Your task to perform on an android device: add a contact Image 0: 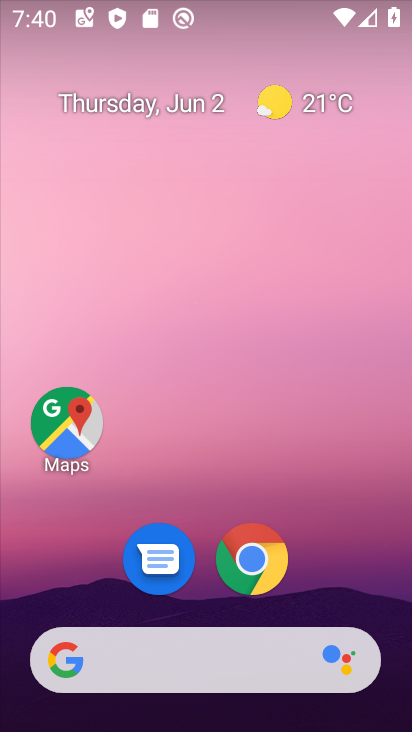
Step 0: drag from (326, 567) to (274, 65)
Your task to perform on an android device: add a contact Image 1: 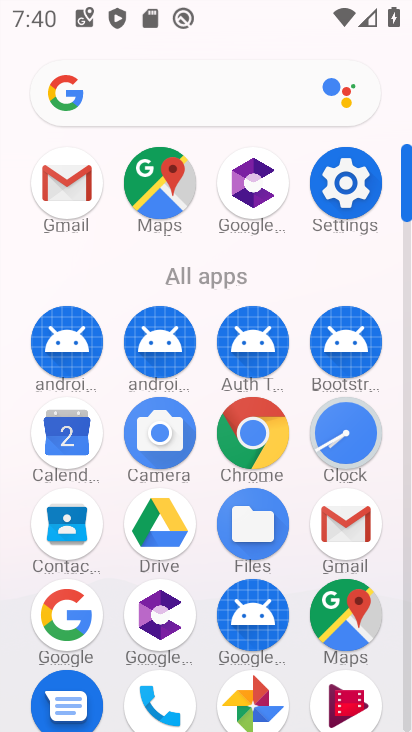
Step 1: click (69, 536)
Your task to perform on an android device: add a contact Image 2: 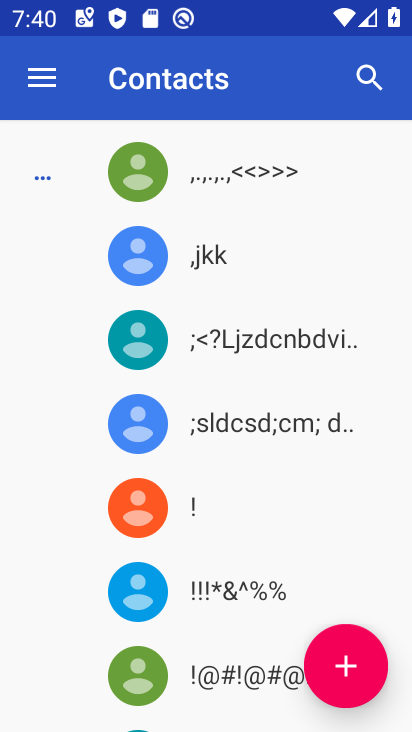
Step 2: click (343, 667)
Your task to perform on an android device: add a contact Image 3: 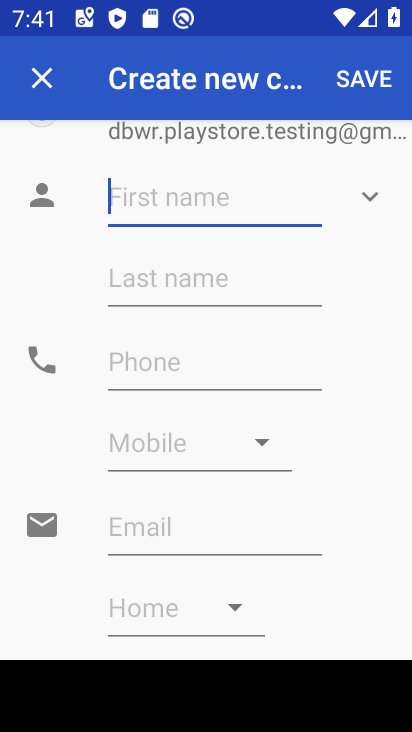
Step 3: type "jhgfd"
Your task to perform on an android device: add a contact Image 4: 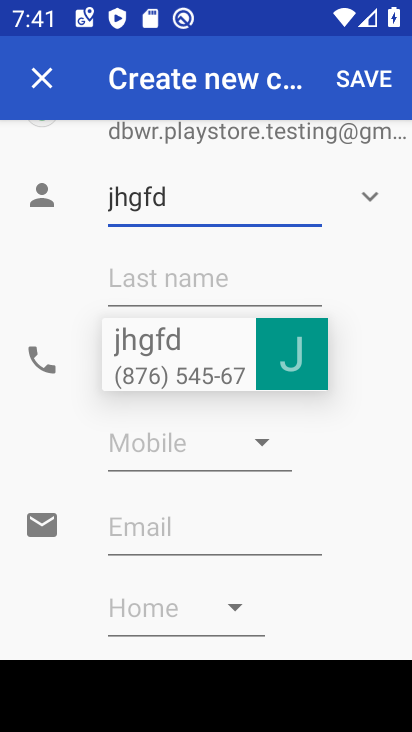
Step 4: click (191, 346)
Your task to perform on an android device: add a contact Image 5: 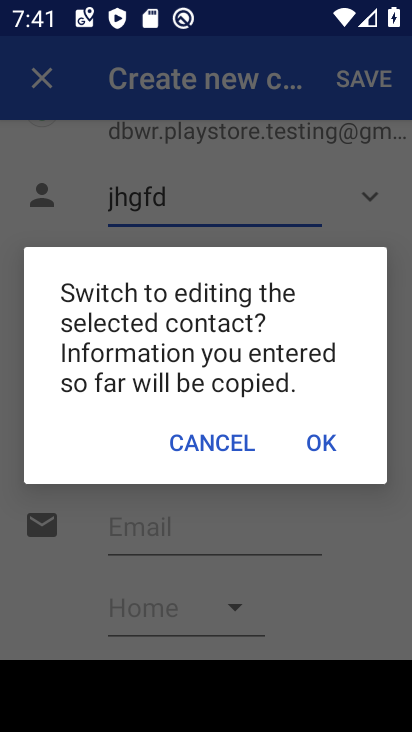
Step 5: click (309, 434)
Your task to perform on an android device: add a contact Image 6: 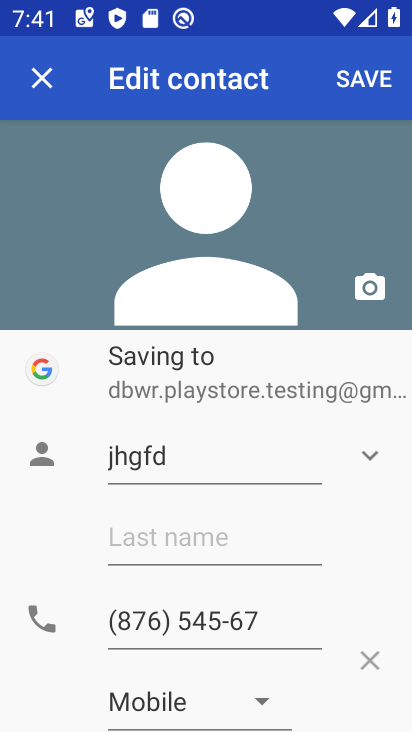
Step 6: click (358, 81)
Your task to perform on an android device: add a contact Image 7: 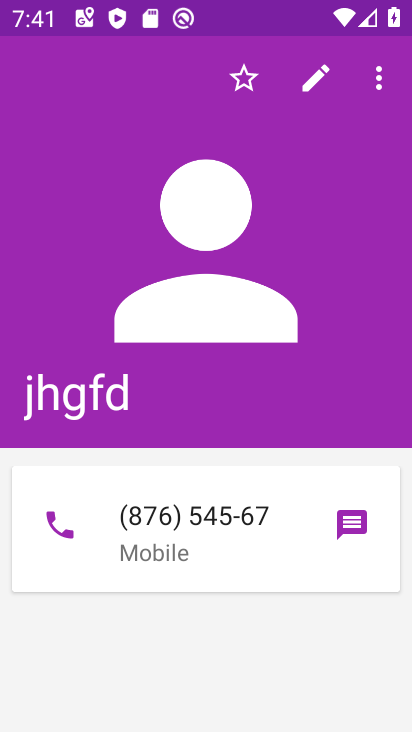
Step 7: task complete